Your task to perform on an android device: move an email to a new category in the gmail app Image 0: 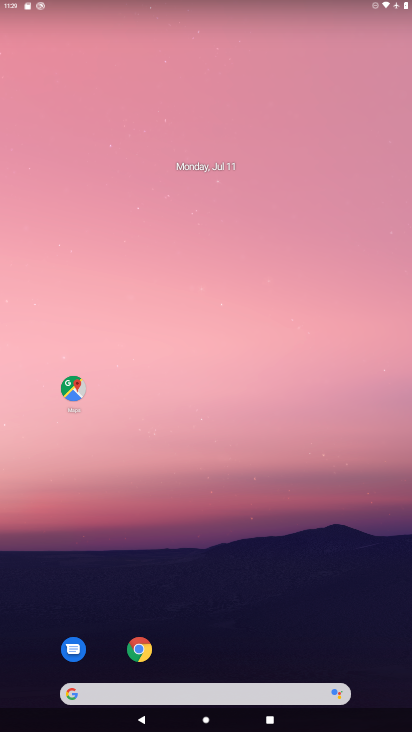
Step 0: drag from (325, 586) to (231, 100)
Your task to perform on an android device: move an email to a new category in the gmail app Image 1: 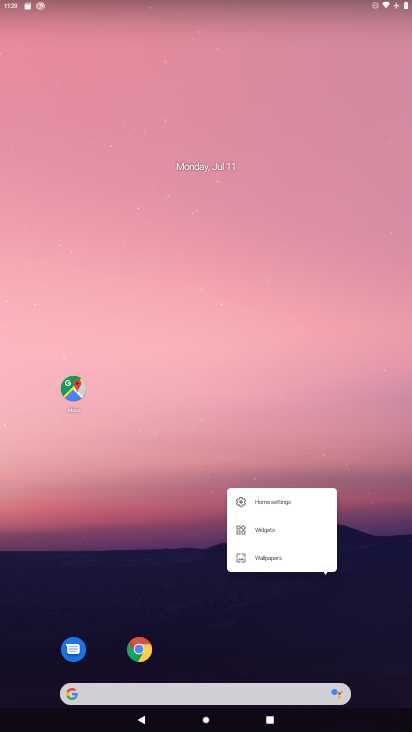
Step 1: click (378, 420)
Your task to perform on an android device: move an email to a new category in the gmail app Image 2: 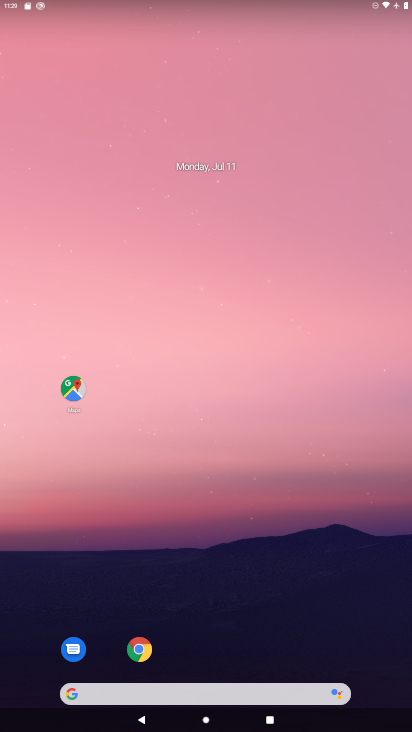
Step 2: drag from (212, 628) to (181, 144)
Your task to perform on an android device: move an email to a new category in the gmail app Image 3: 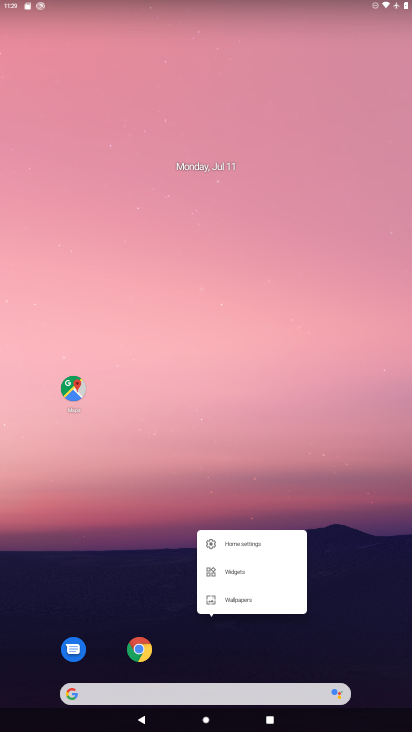
Step 3: click (290, 434)
Your task to perform on an android device: move an email to a new category in the gmail app Image 4: 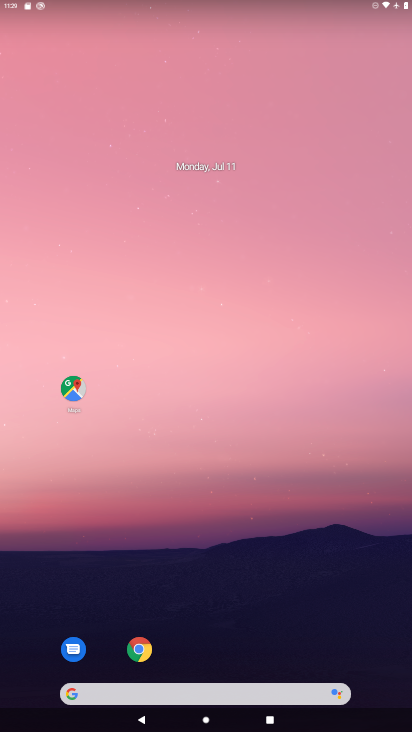
Step 4: drag from (294, 621) to (280, 65)
Your task to perform on an android device: move an email to a new category in the gmail app Image 5: 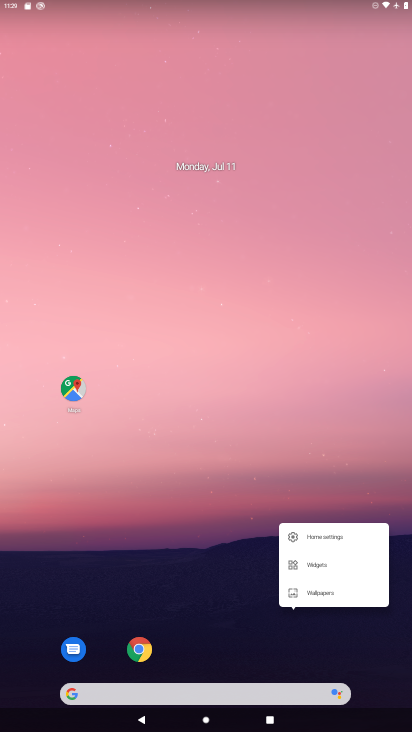
Step 5: click (213, 409)
Your task to perform on an android device: move an email to a new category in the gmail app Image 6: 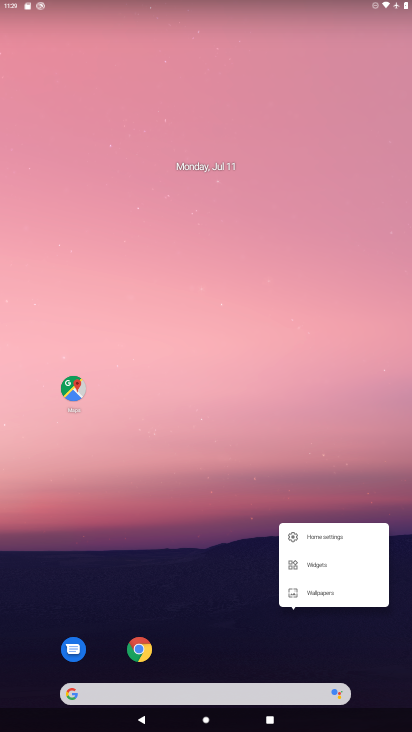
Step 6: click (211, 408)
Your task to perform on an android device: move an email to a new category in the gmail app Image 7: 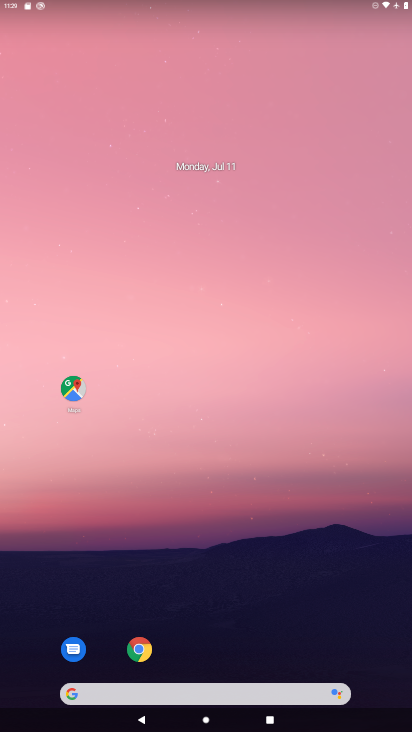
Step 7: drag from (217, 397) to (163, 111)
Your task to perform on an android device: move an email to a new category in the gmail app Image 8: 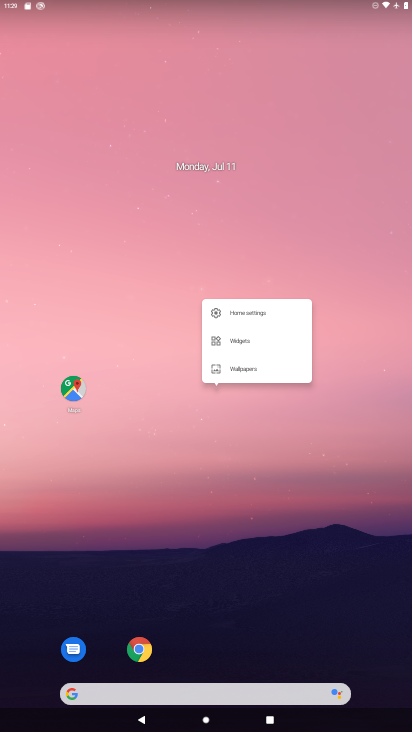
Step 8: click (350, 405)
Your task to perform on an android device: move an email to a new category in the gmail app Image 9: 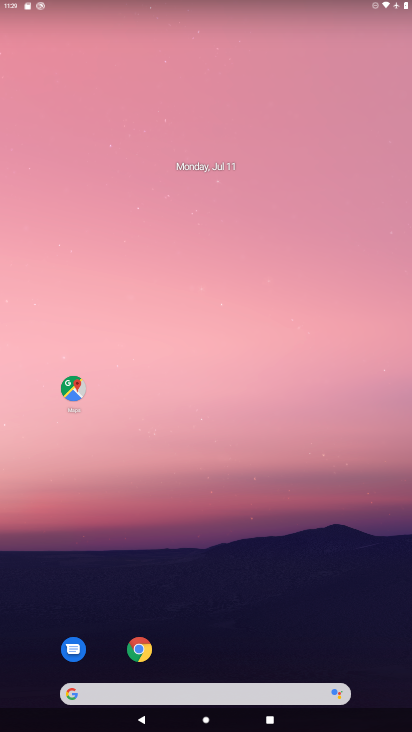
Step 9: drag from (224, 527) to (162, 88)
Your task to perform on an android device: move an email to a new category in the gmail app Image 10: 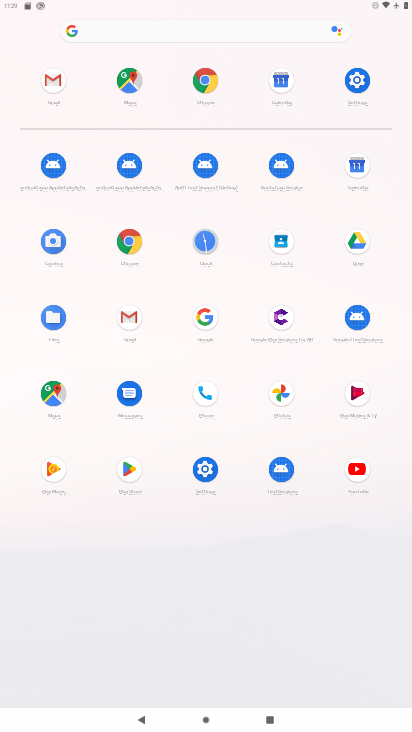
Step 10: click (224, 590)
Your task to perform on an android device: move an email to a new category in the gmail app Image 11: 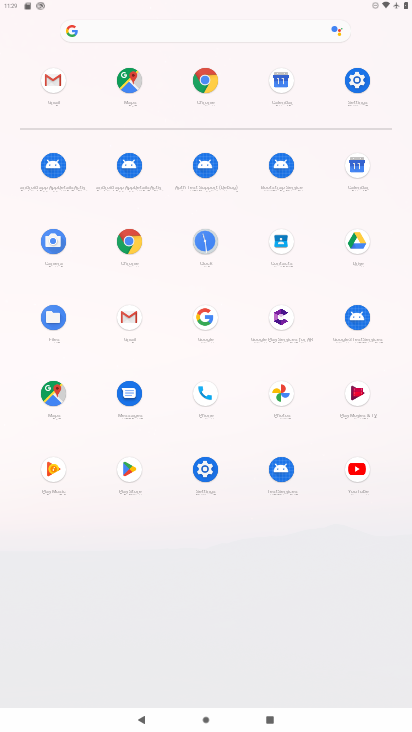
Step 11: click (61, 72)
Your task to perform on an android device: move an email to a new category in the gmail app Image 12: 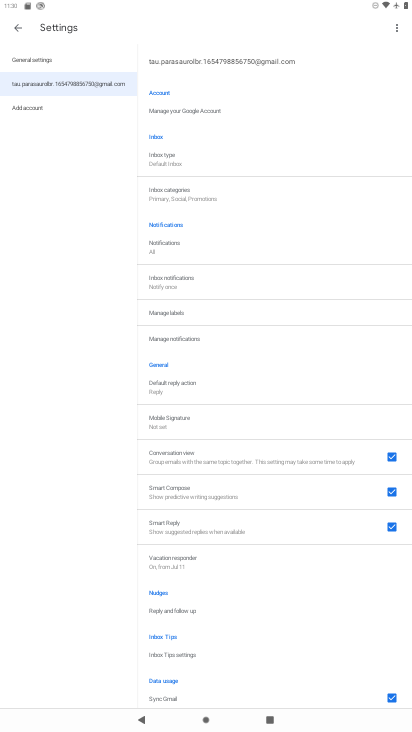
Step 12: click (19, 21)
Your task to perform on an android device: move an email to a new category in the gmail app Image 13: 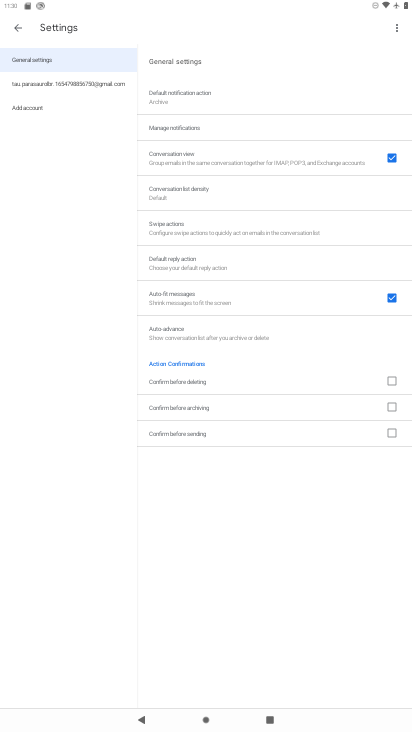
Step 13: click (20, 24)
Your task to perform on an android device: move an email to a new category in the gmail app Image 14: 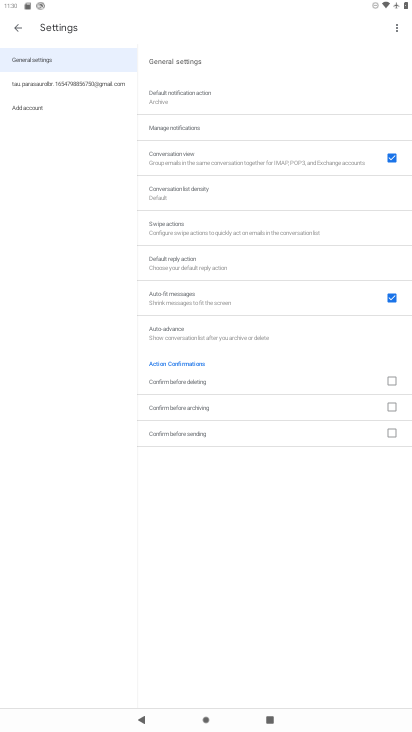
Step 14: press back button
Your task to perform on an android device: move an email to a new category in the gmail app Image 15: 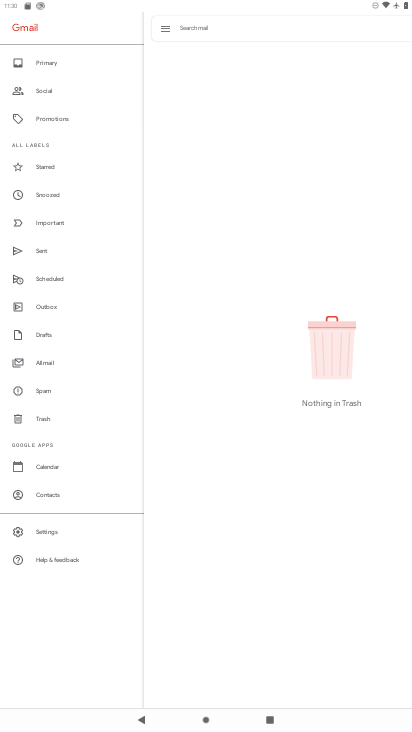
Step 15: click (52, 363)
Your task to perform on an android device: move an email to a new category in the gmail app Image 16: 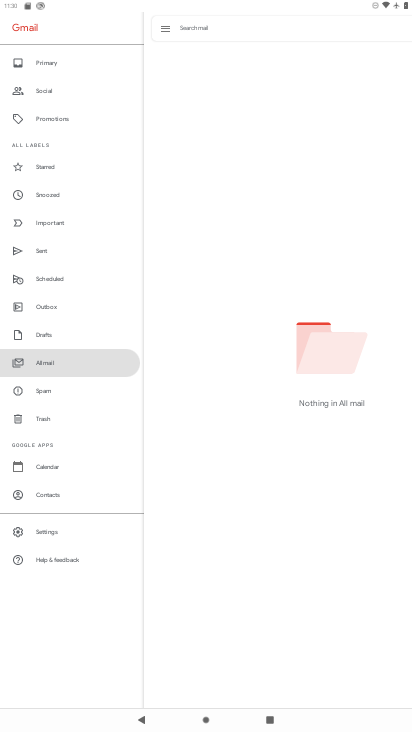
Step 16: task complete